Your task to perform on an android device: open chrome and create a bookmark for the current page Image 0: 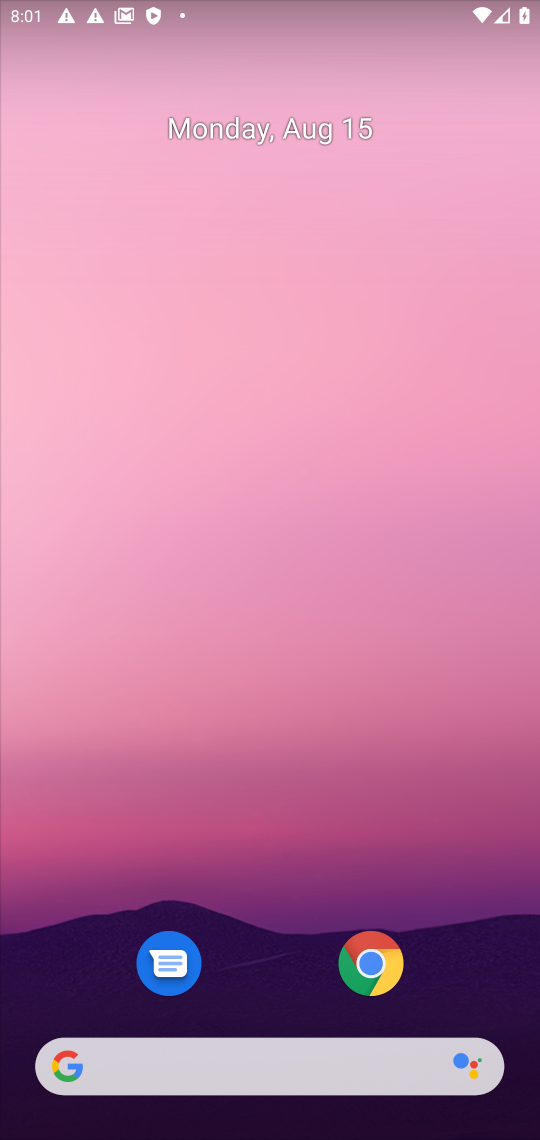
Step 0: click (394, 958)
Your task to perform on an android device: open chrome and create a bookmark for the current page Image 1: 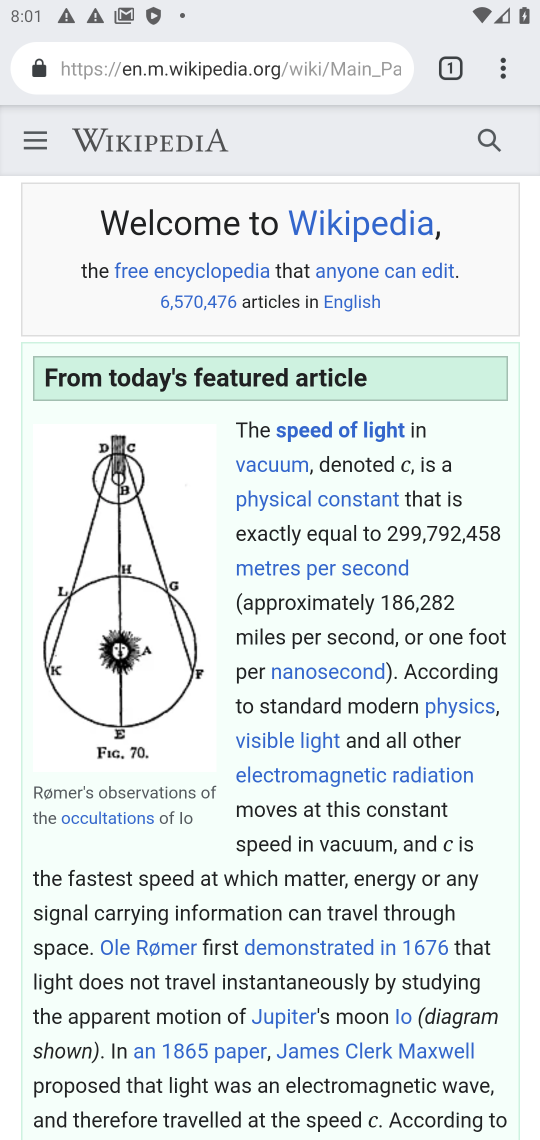
Step 1: click (505, 68)
Your task to perform on an android device: open chrome and create a bookmark for the current page Image 2: 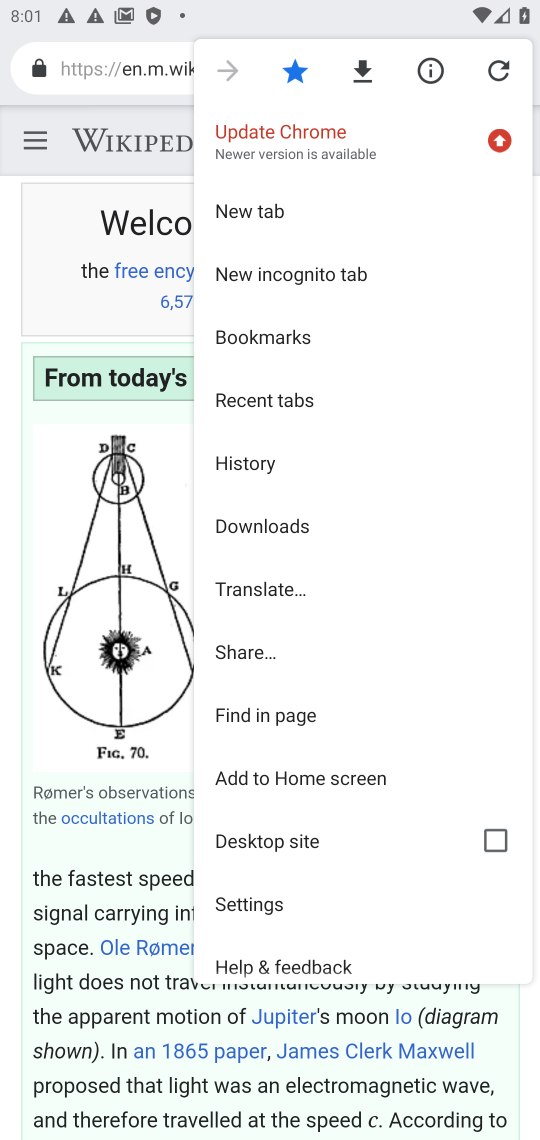
Step 2: task complete